Your task to perform on an android device: Open Google Chrome and open the bookmarks view Image 0: 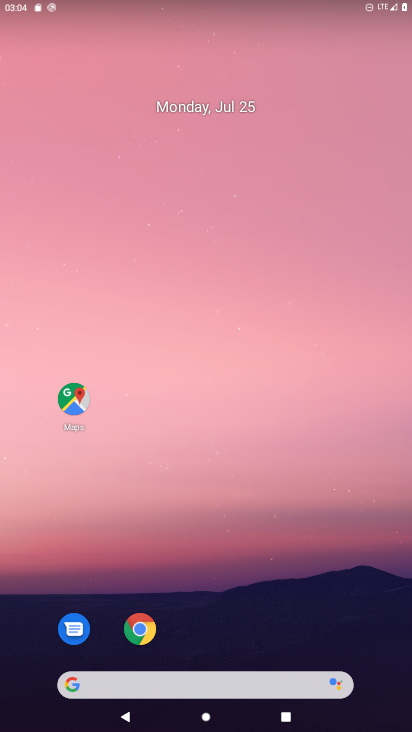
Step 0: drag from (298, 577) to (292, 7)
Your task to perform on an android device: Open Google Chrome and open the bookmarks view Image 1: 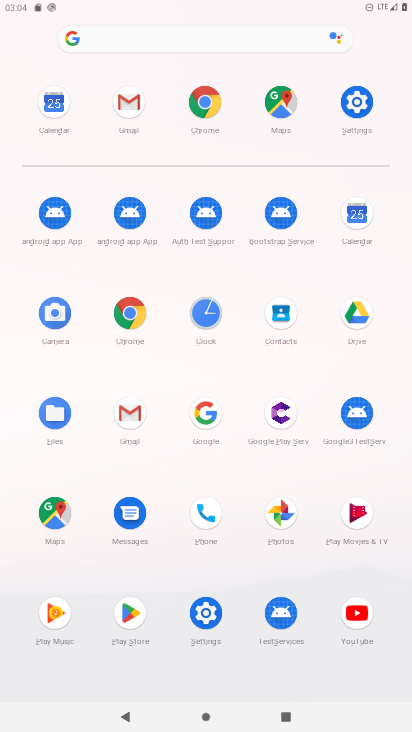
Step 1: click (129, 312)
Your task to perform on an android device: Open Google Chrome and open the bookmarks view Image 2: 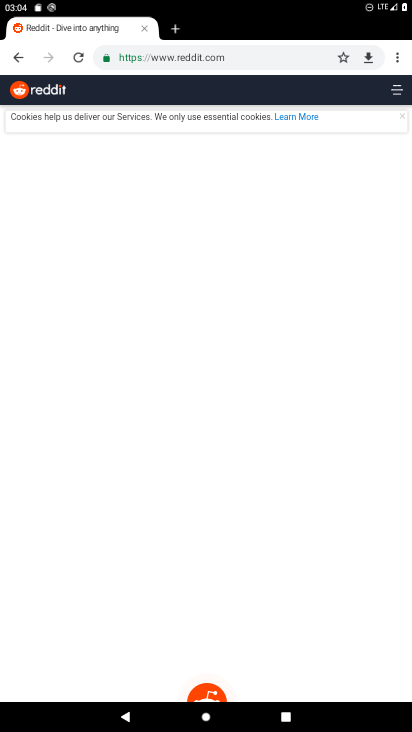
Step 2: task complete